Your task to perform on an android device: Show me popular videos on Youtube Image 0: 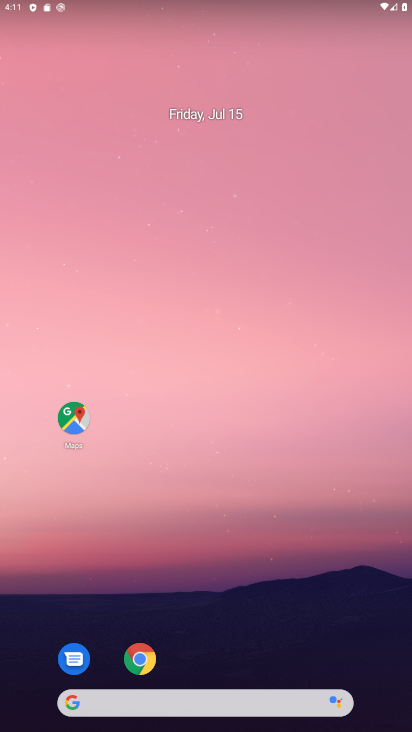
Step 0: drag from (255, 668) to (217, 19)
Your task to perform on an android device: Show me popular videos on Youtube Image 1: 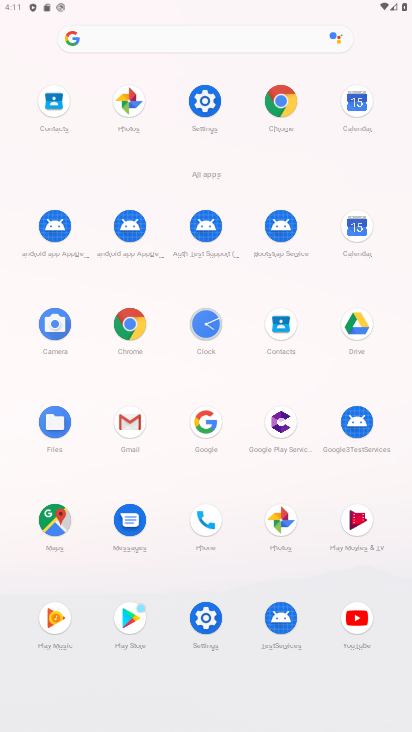
Step 1: click (350, 613)
Your task to perform on an android device: Show me popular videos on Youtube Image 2: 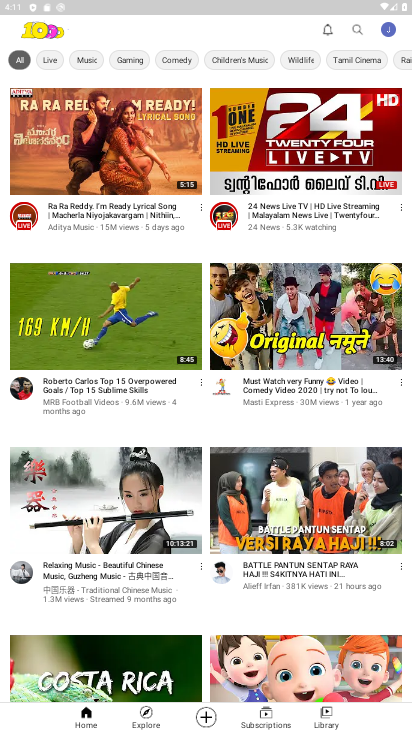
Step 2: click (384, 26)
Your task to perform on an android device: Show me popular videos on Youtube Image 3: 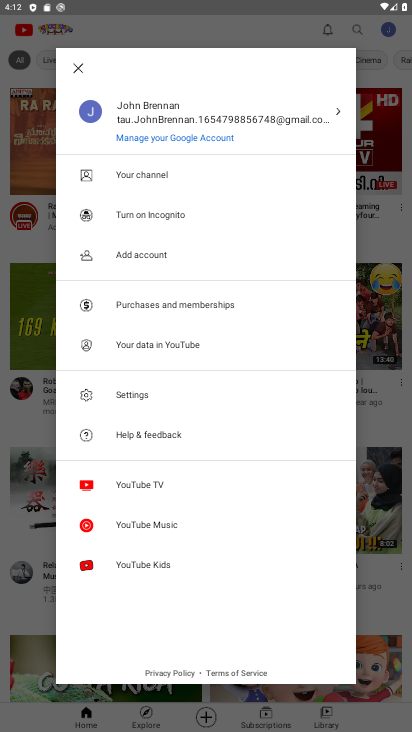
Step 3: click (78, 65)
Your task to perform on an android device: Show me popular videos on Youtube Image 4: 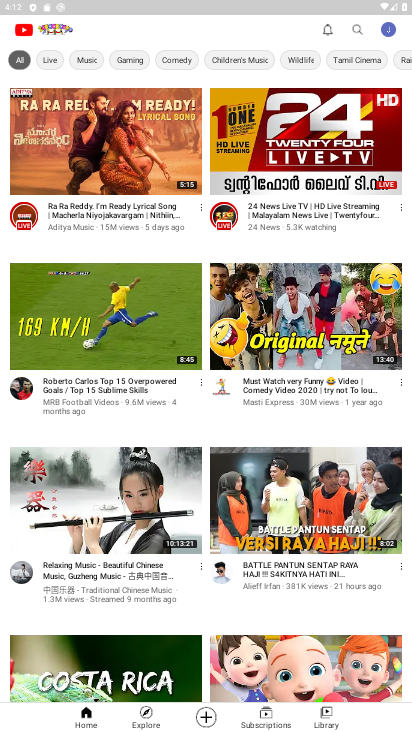
Step 4: task complete